Your task to perform on an android device: Find coffee shops on Maps Image 0: 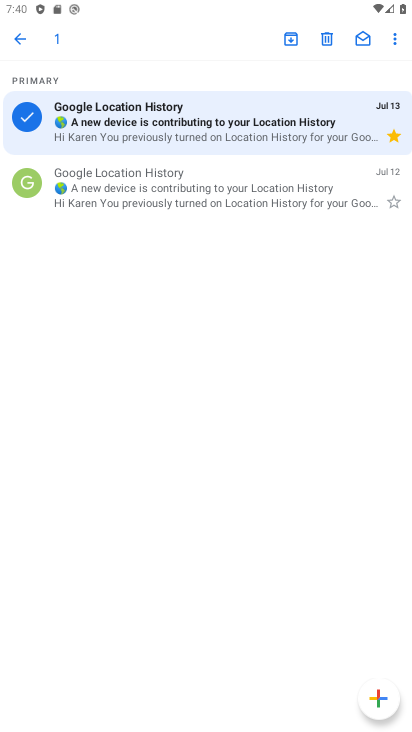
Step 0: press home button
Your task to perform on an android device: Find coffee shops on Maps Image 1: 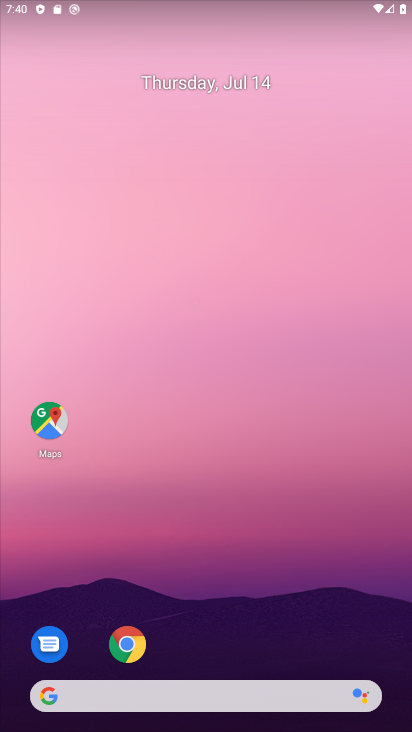
Step 1: click (42, 418)
Your task to perform on an android device: Find coffee shops on Maps Image 2: 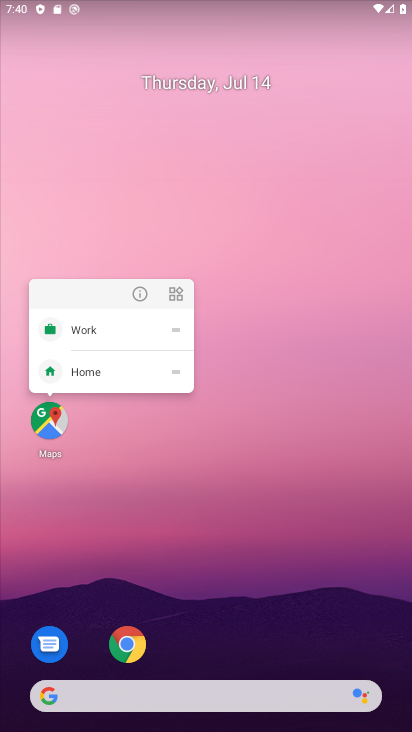
Step 2: click (56, 419)
Your task to perform on an android device: Find coffee shops on Maps Image 3: 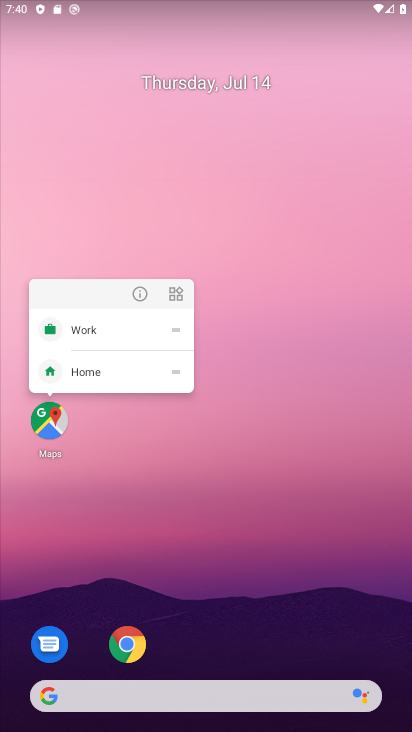
Step 3: click (51, 425)
Your task to perform on an android device: Find coffee shops on Maps Image 4: 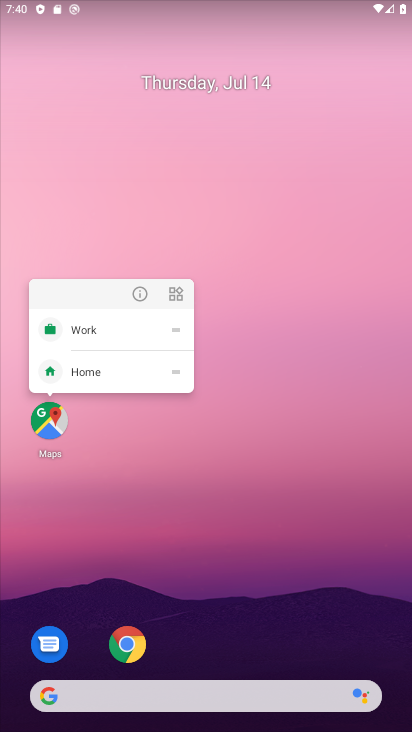
Step 4: click (47, 418)
Your task to perform on an android device: Find coffee shops on Maps Image 5: 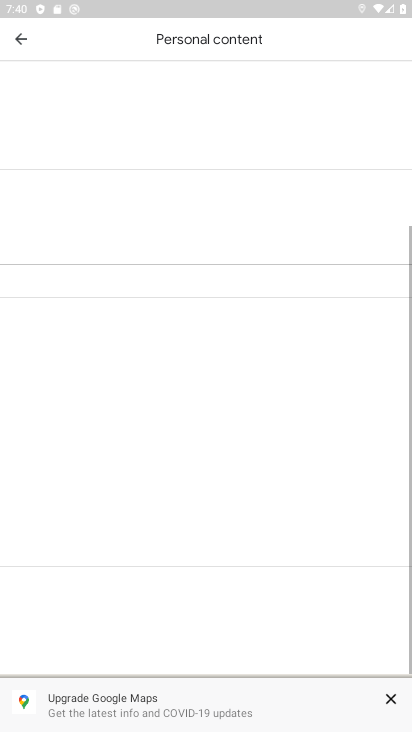
Step 5: click (25, 29)
Your task to perform on an android device: Find coffee shops on Maps Image 6: 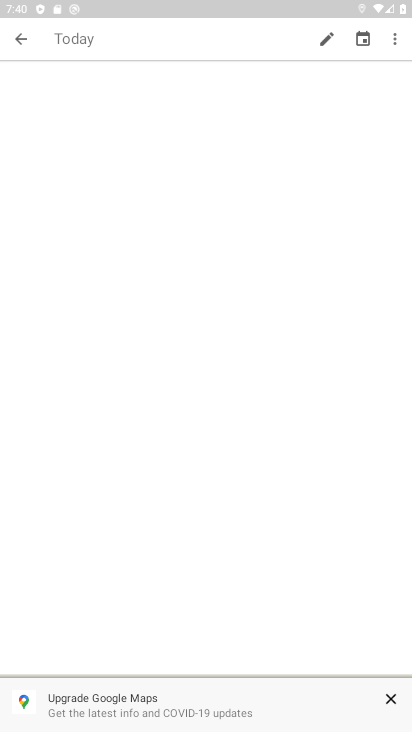
Step 6: click (29, 43)
Your task to perform on an android device: Find coffee shops on Maps Image 7: 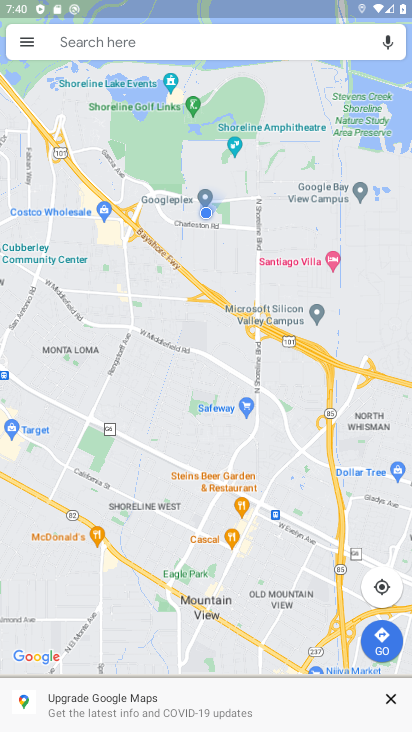
Step 7: click (196, 41)
Your task to perform on an android device: Find coffee shops on Maps Image 8: 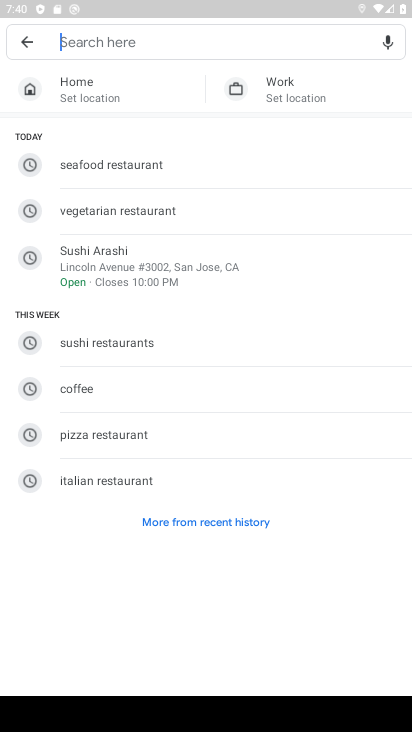
Step 8: click (98, 388)
Your task to perform on an android device: Find coffee shops on Maps Image 9: 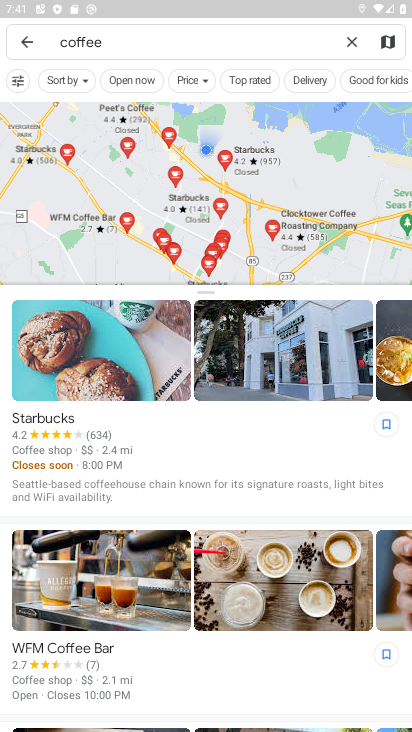
Step 9: task complete